Your task to perform on an android device: Open privacy settings Image 0: 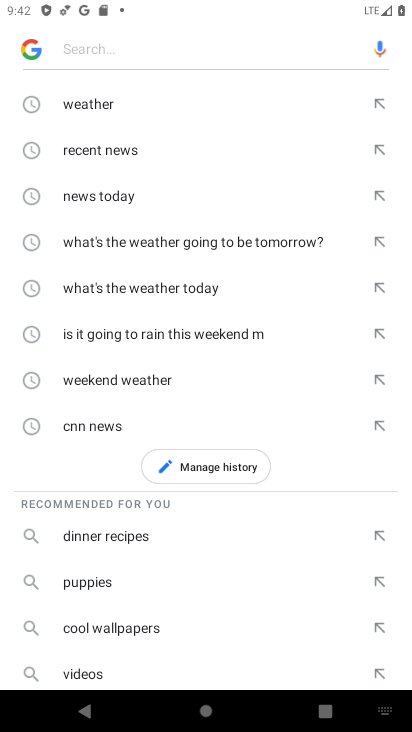
Step 0: press home button
Your task to perform on an android device: Open privacy settings Image 1: 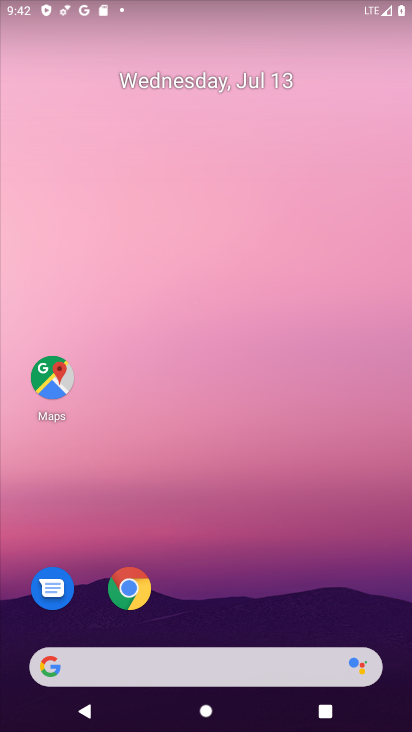
Step 1: drag from (268, 596) to (301, 119)
Your task to perform on an android device: Open privacy settings Image 2: 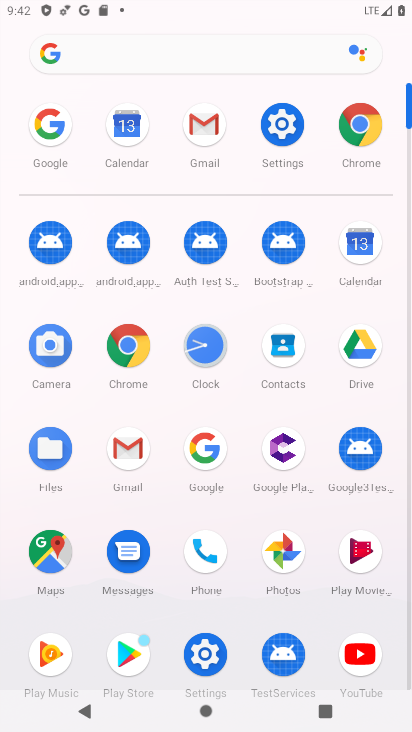
Step 2: click (284, 125)
Your task to perform on an android device: Open privacy settings Image 3: 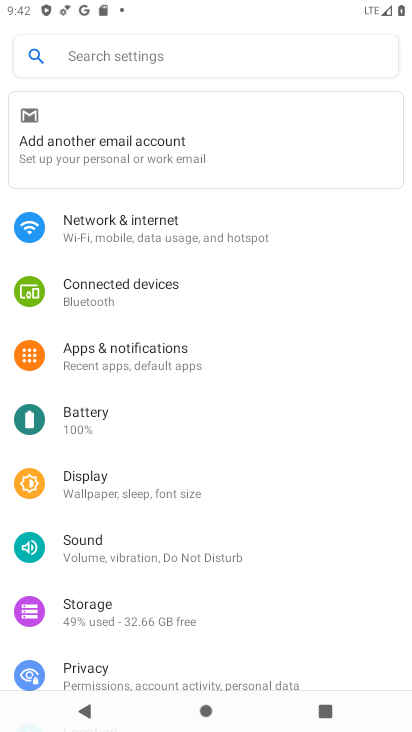
Step 3: drag from (218, 629) to (222, 314)
Your task to perform on an android device: Open privacy settings Image 4: 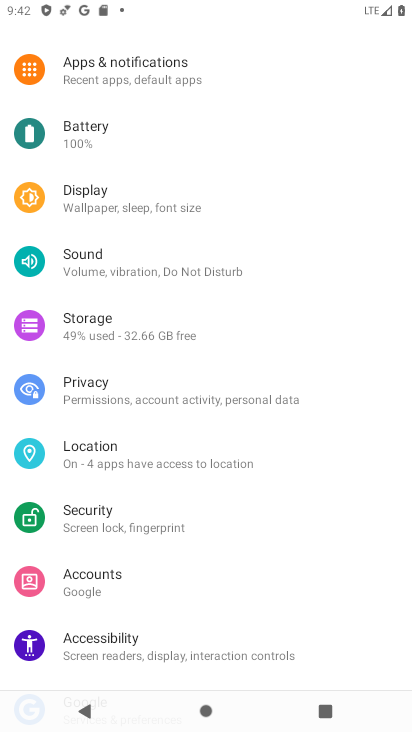
Step 4: click (123, 376)
Your task to perform on an android device: Open privacy settings Image 5: 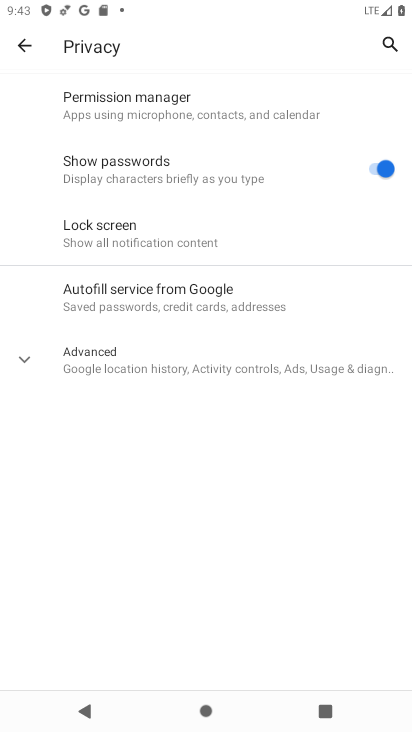
Step 5: task complete